Your task to perform on an android device: Open Google Chrome and click the shortcut for Amazon.com Image 0: 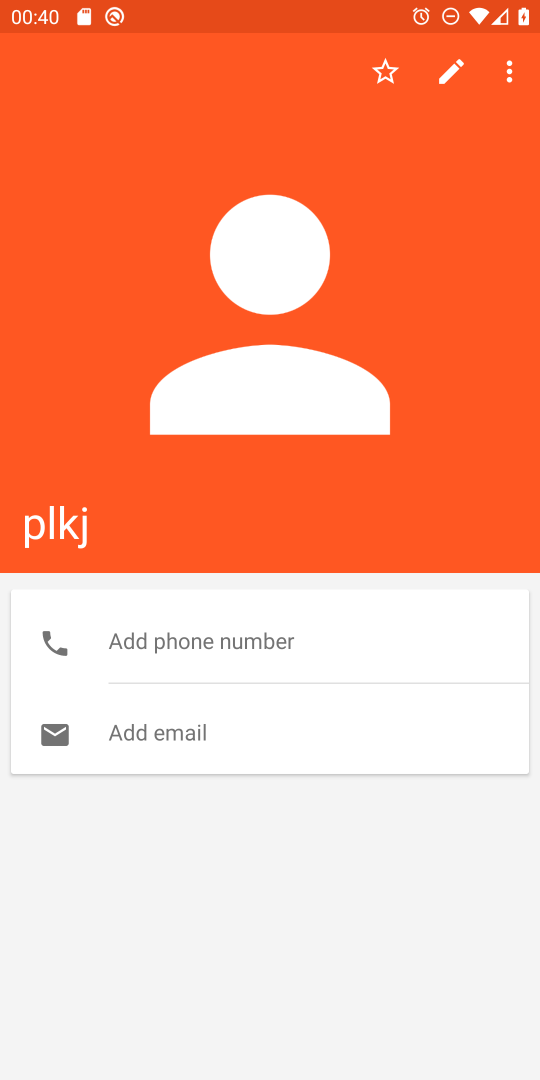
Step 0: press home button
Your task to perform on an android device: Open Google Chrome and click the shortcut for Amazon.com Image 1: 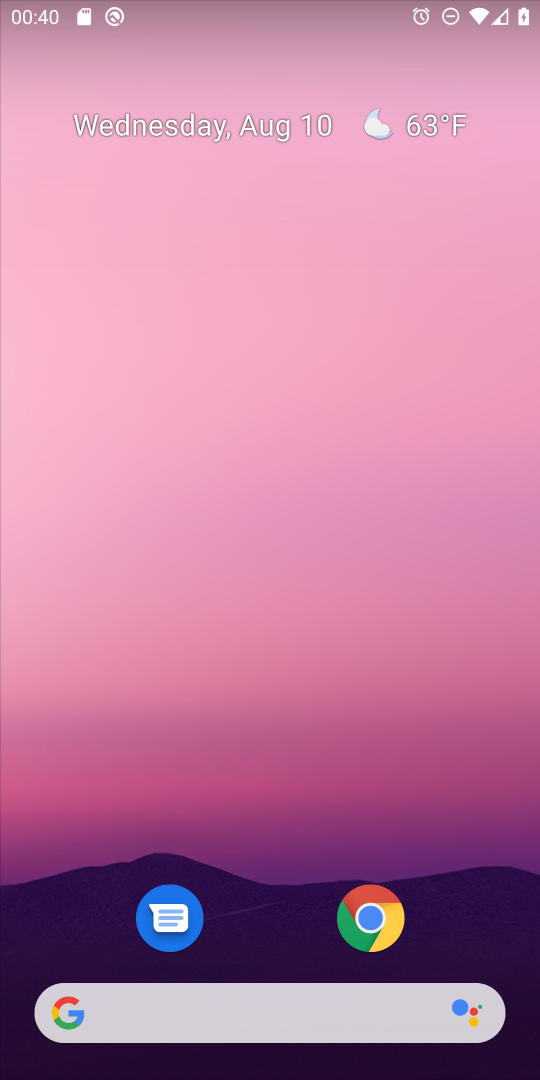
Step 1: drag from (247, 921) to (356, 119)
Your task to perform on an android device: Open Google Chrome and click the shortcut for Amazon.com Image 2: 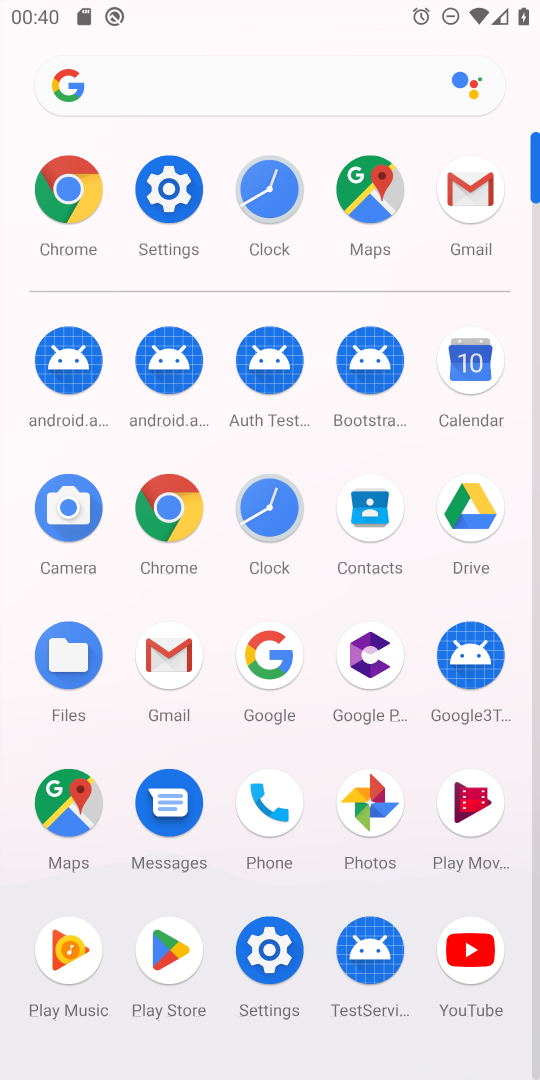
Step 2: click (161, 511)
Your task to perform on an android device: Open Google Chrome and click the shortcut for Amazon.com Image 3: 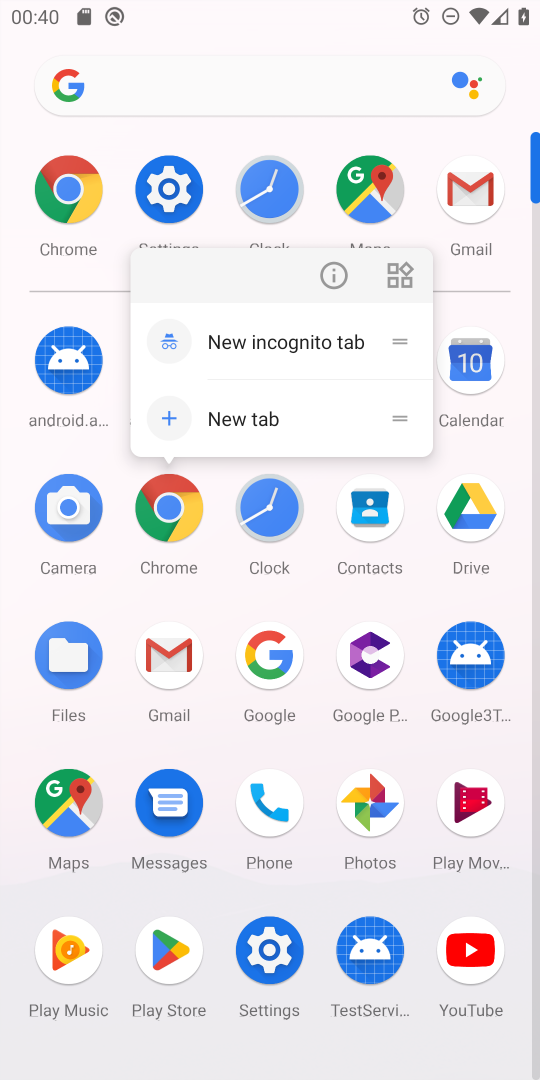
Step 3: click (176, 525)
Your task to perform on an android device: Open Google Chrome and click the shortcut for Amazon.com Image 4: 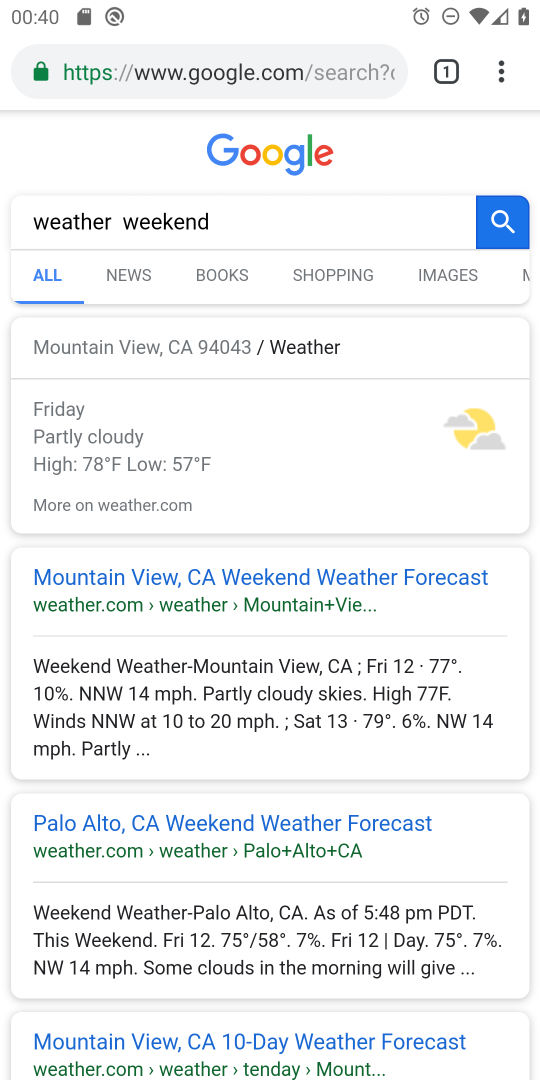
Step 4: click (514, 67)
Your task to perform on an android device: Open Google Chrome and click the shortcut for Amazon.com Image 5: 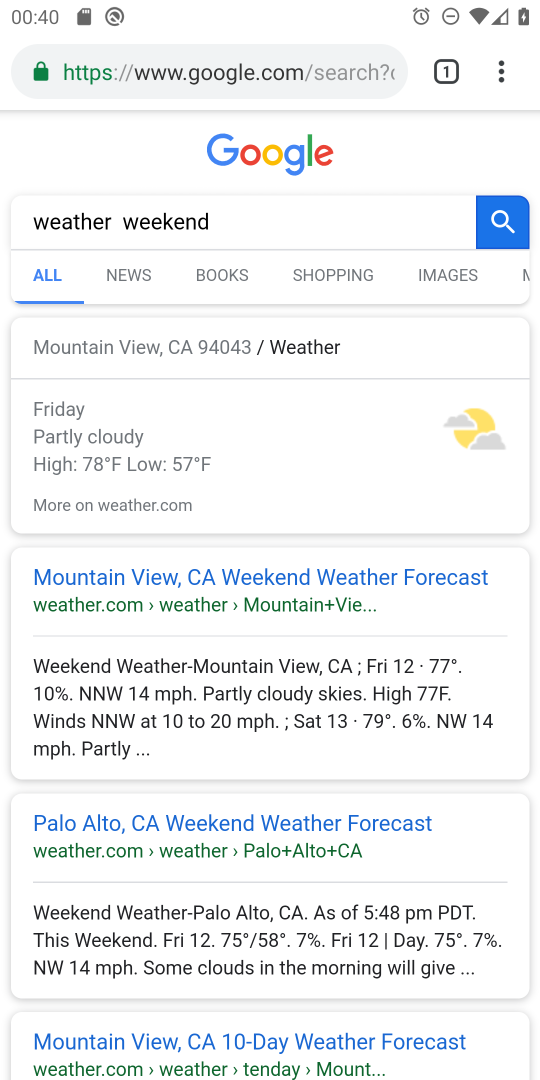
Step 5: task complete